Your task to perform on an android device: Show me popular videos on Youtube Image 0: 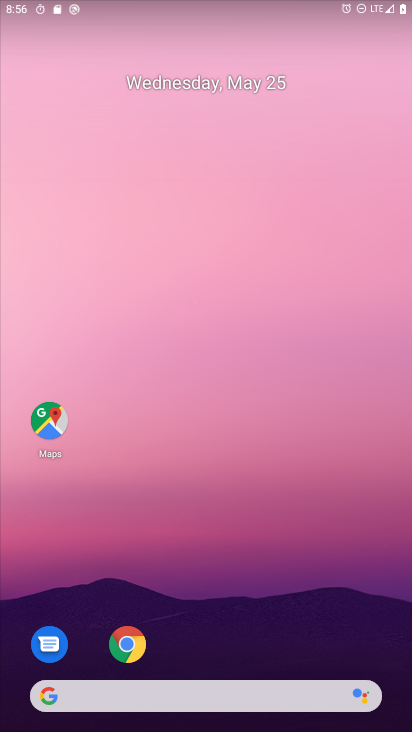
Step 0: drag from (371, 623) to (287, 58)
Your task to perform on an android device: Show me popular videos on Youtube Image 1: 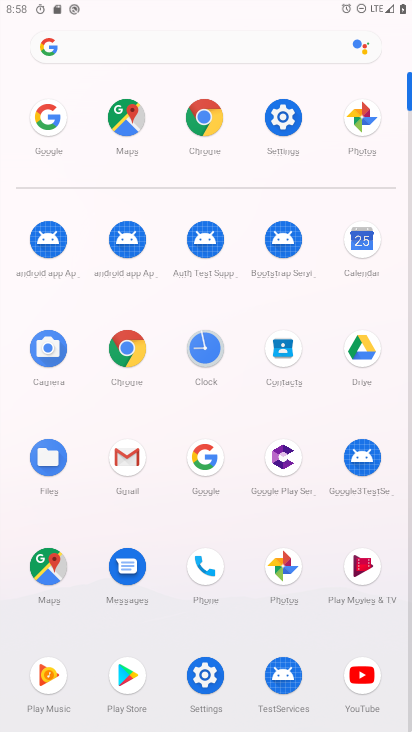
Step 1: click (361, 677)
Your task to perform on an android device: Show me popular videos on Youtube Image 2: 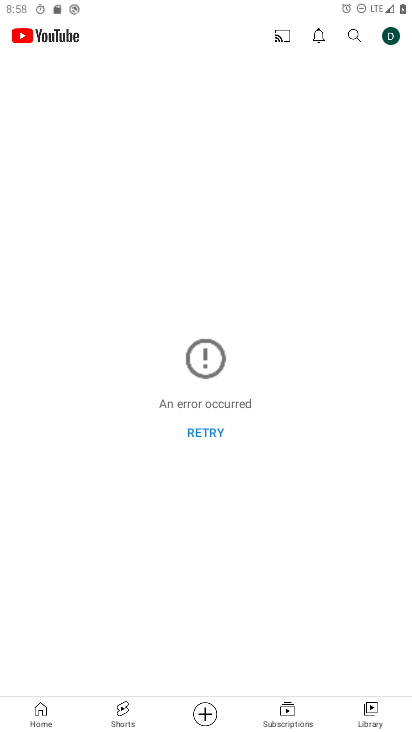
Step 2: task complete